Your task to perform on an android device: Go to accessibility settings Image 0: 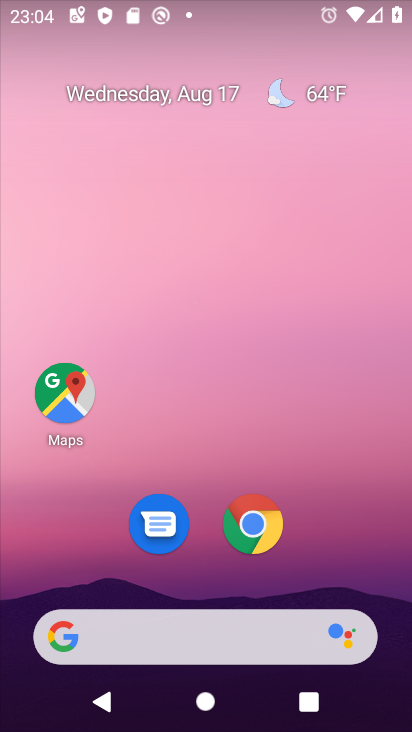
Step 0: drag from (311, 443) to (322, 1)
Your task to perform on an android device: Go to accessibility settings Image 1: 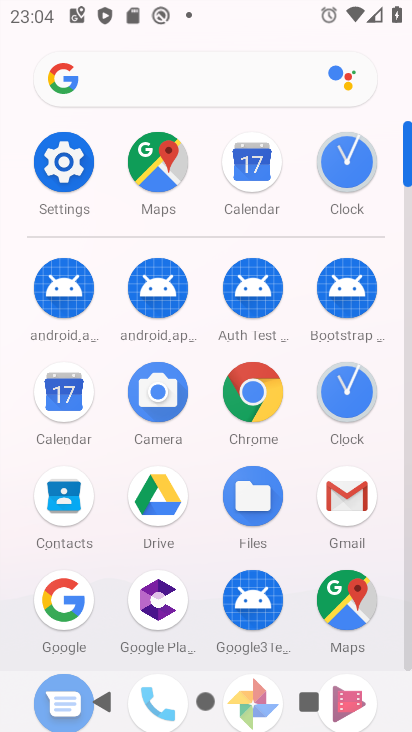
Step 1: click (63, 158)
Your task to perform on an android device: Go to accessibility settings Image 2: 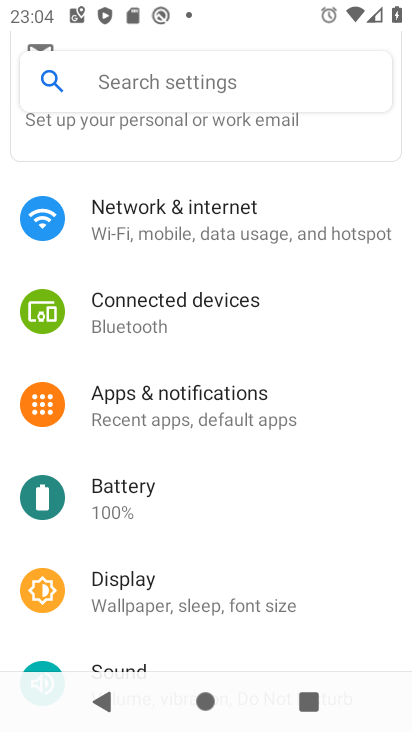
Step 2: drag from (253, 530) to (247, 0)
Your task to perform on an android device: Go to accessibility settings Image 3: 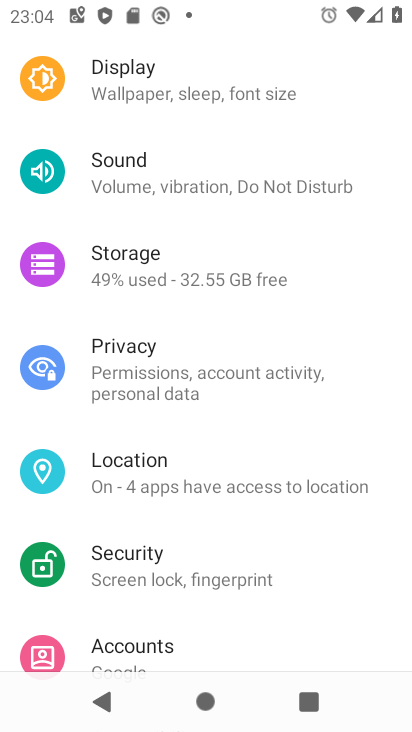
Step 3: drag from (211, 534) to (227, 52)
Your task to perform on an android device: Go to accessibility settings Image 4: 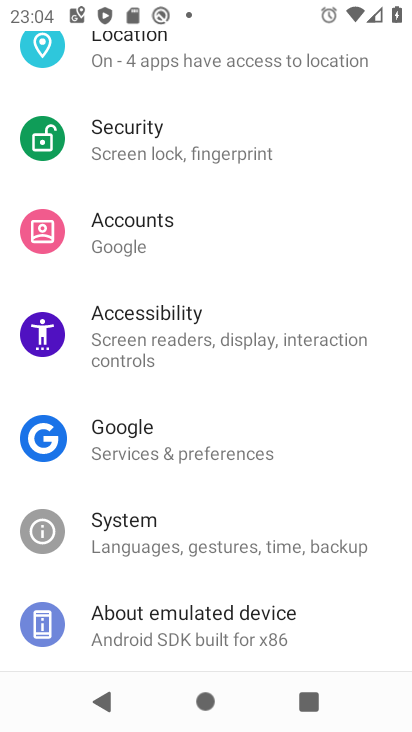
Step 4: click (235, 340)
Your task to perform on an android device: Go to accessibility settings Image 5: 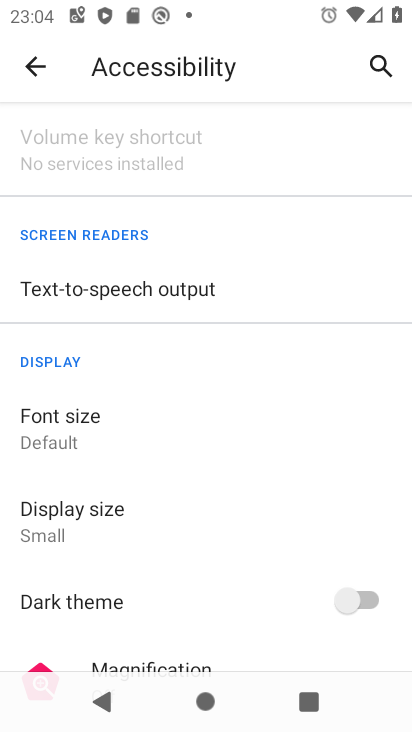
Step 5: task complete